Your task to perform on an android device: Is it going to rain this weekend? Image 0: 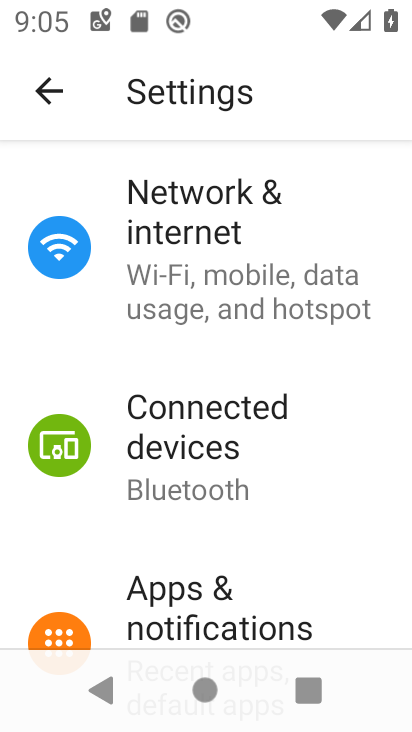
Step 0: press home button
Your task to perform on an android device: Is it going to rain this weekend? Image 1: 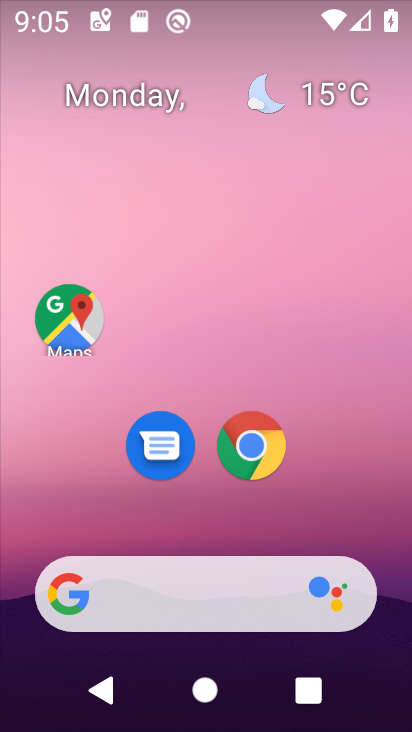
Step 1: click (326, 92)
Your task to perform on an android device: Is it going to rain this weekend? Image 2: 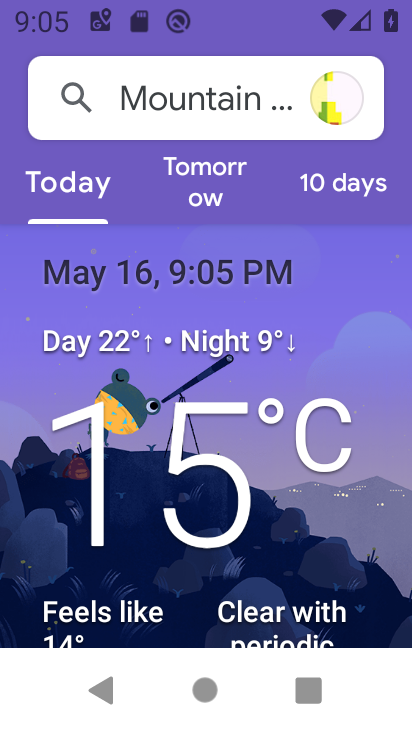
Step 2: click (331, 195)
Your task to perform on an android device: Is it going to rain this weekend? Image 3: 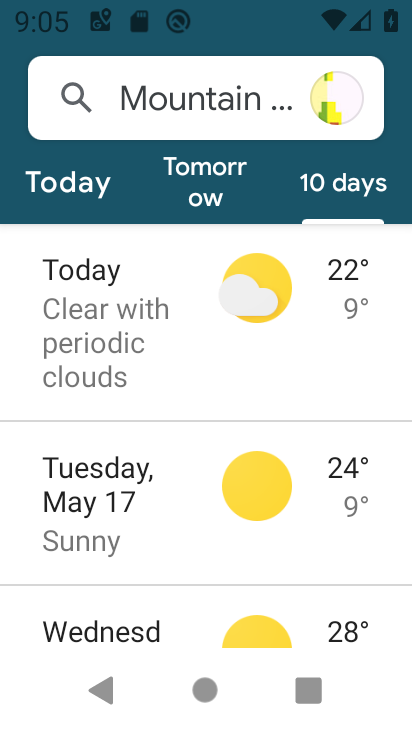
Step 3: task complete